Your task to perform on an android device: Search for Mexican restaurants on Maps Image 0: 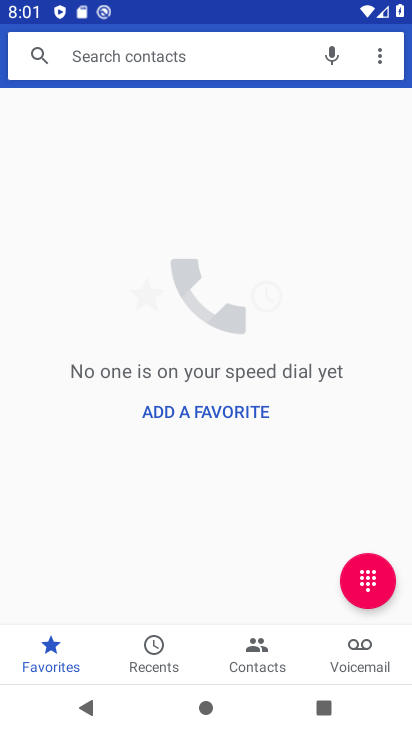
Step 0: press back button
Your task to perform on an android device: Search for Mexican restaurants on Maps Image 1: 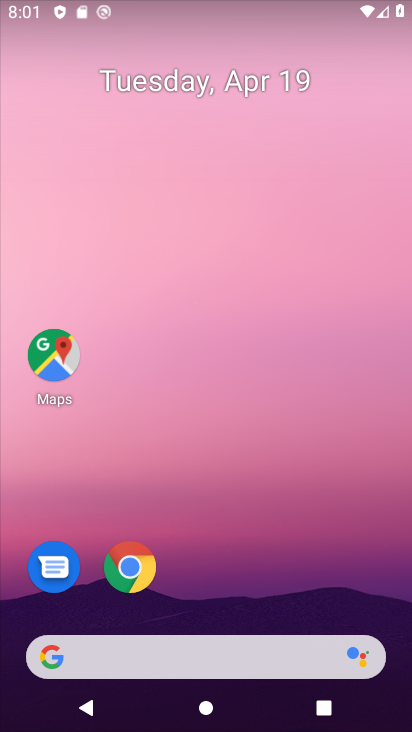
Step 1: click (55, 361)
Your task to perform on an android device: Search for Mexican restaurants on Maps Image 2: 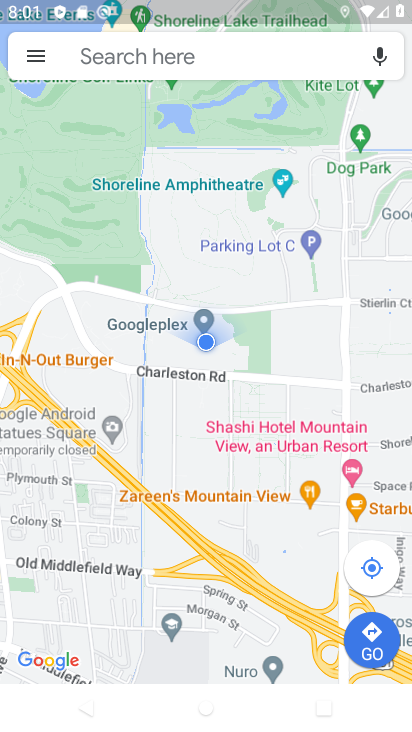
Step 2: click (220, 68)
Your task to perform on an android device: Search for Mexican restaurants on Maps Image 3: 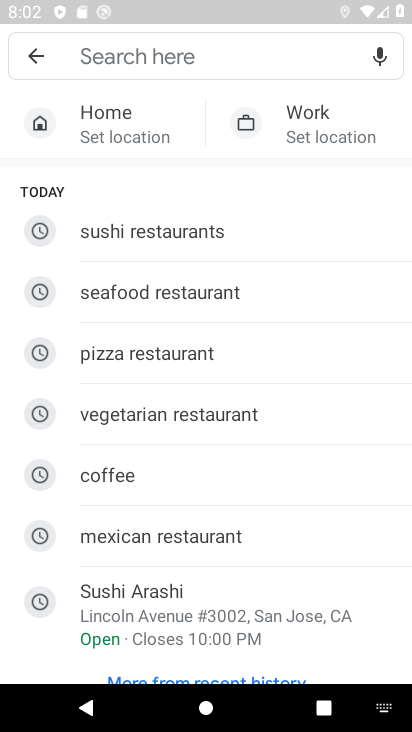
Step 3: type "mexican restaurants "
Your task to perform on an android device: Search for Mexican restaurants on Maps Image 4: 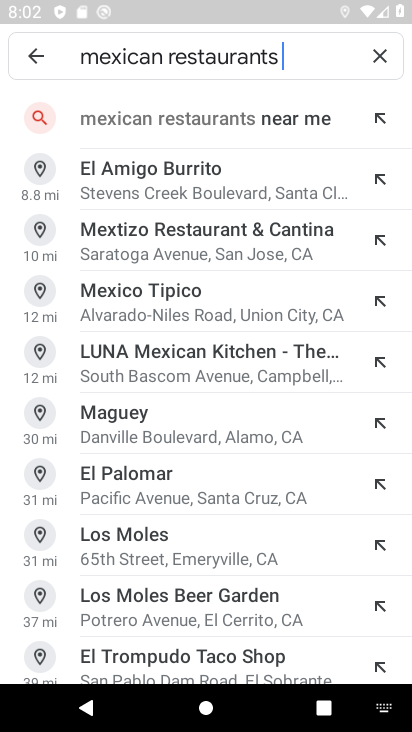
Step 4: click (243, 123)
Your task to perform on an android device: Search for Mexican restaurants on Maps Image 5: 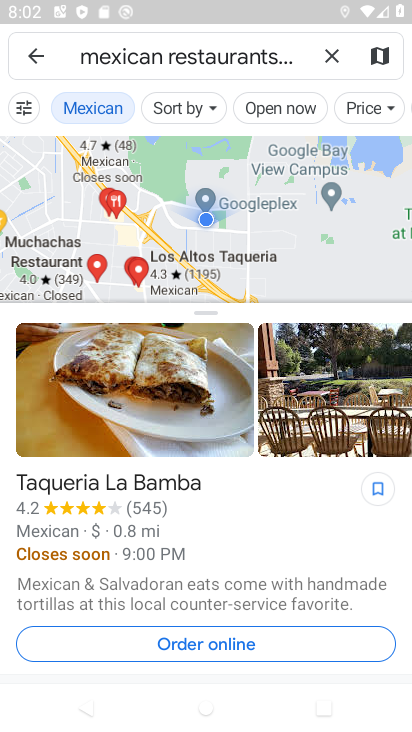
Step 5: task complete